Your task to perform on an android device: turn on airplane mode Image 0: 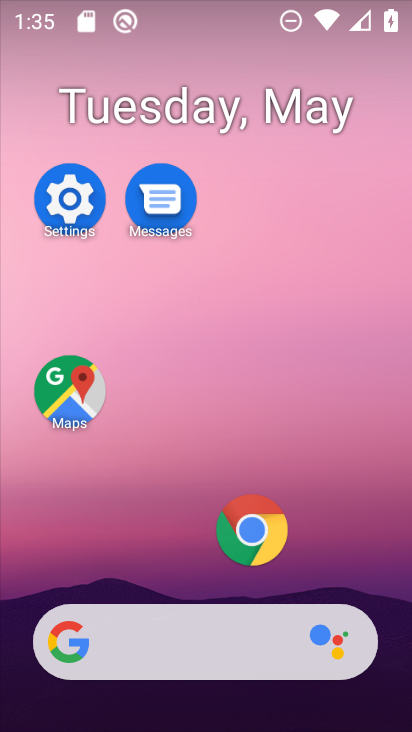
Step 0: drag from (197, 564) to (289, 181)
Your task to perform on an android device: turn on airplane mode Image 1: 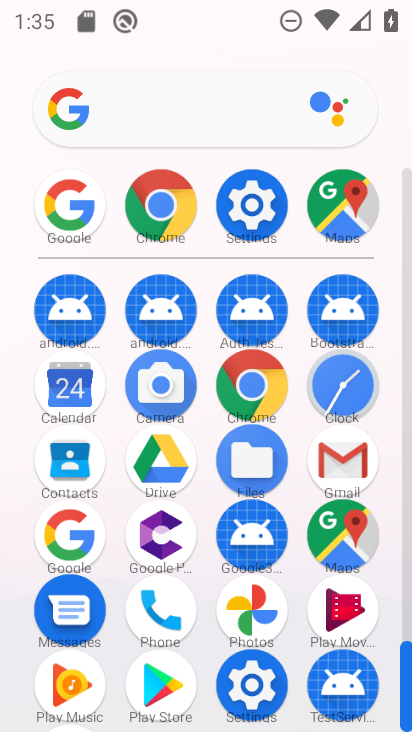
Step 1: click (258, 703)
Your task to perform on an android device: turn on airplane mode Image 2: 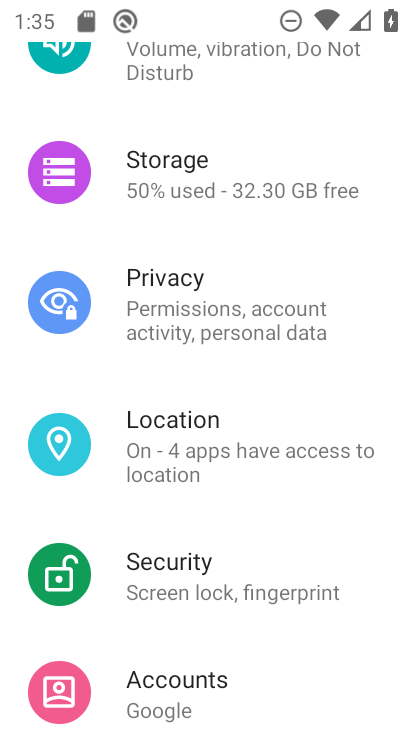
Step 2: drag from (208, 98) to (242, 639)
Your task to perform on an android device: turn on airplane mode Image 3: 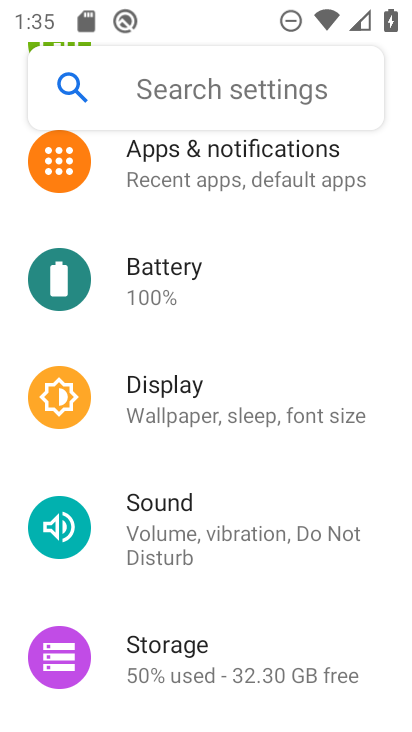
Step 3: drag from (240, 211) to (240, 731)
Your task to perform on an android device: turn on airplane mode Image 4: 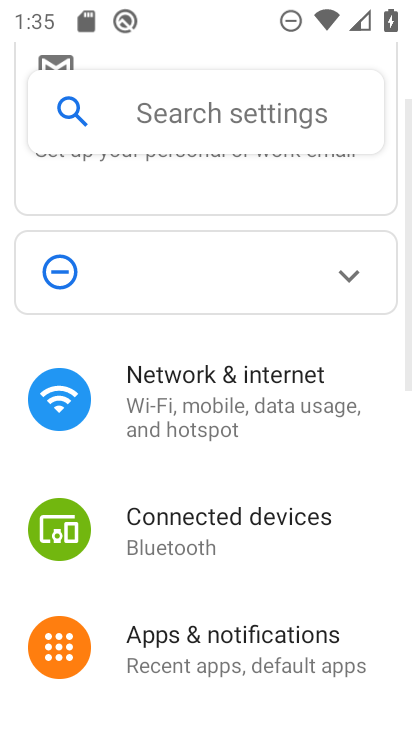
Step 4: drag from (262, 200) to (147, 730)
Your task to perform on an android device: turn on airplane mode Image 5: 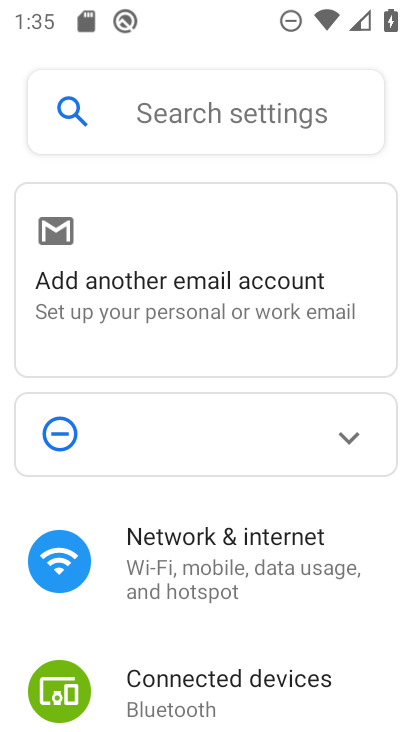
Step 5: drag from (238, 231) to (141, 684)
Your task to perform on an android device: turn on airplane mode Image 6: 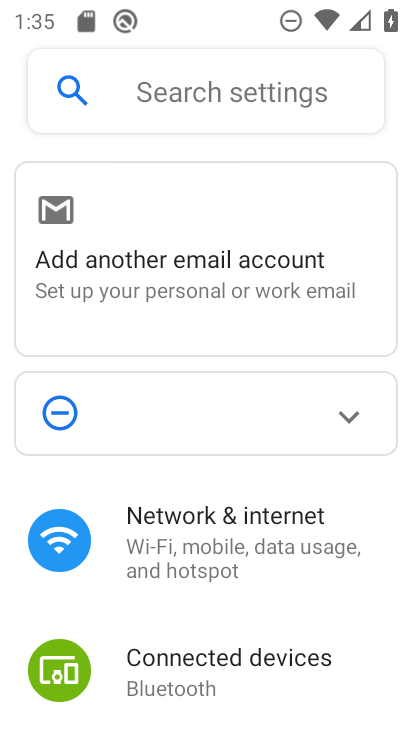
Step 6: click (196, 552)
Your task to perform on an android device: turn on airplane mode Image 7: 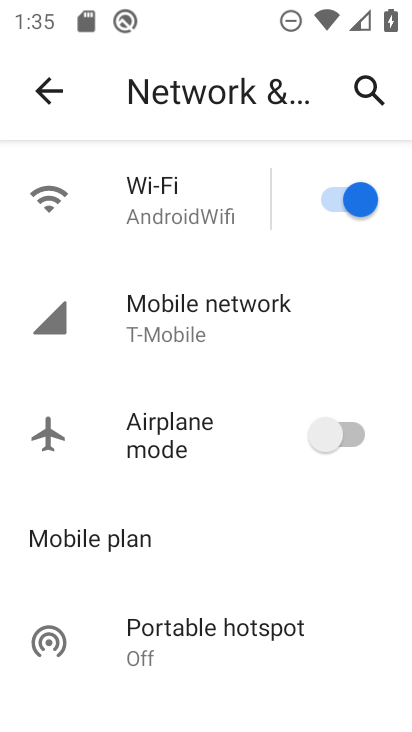
Step 7: click (328, 446)
Your task to perform on an android device: turn on airplane mode Image 8: 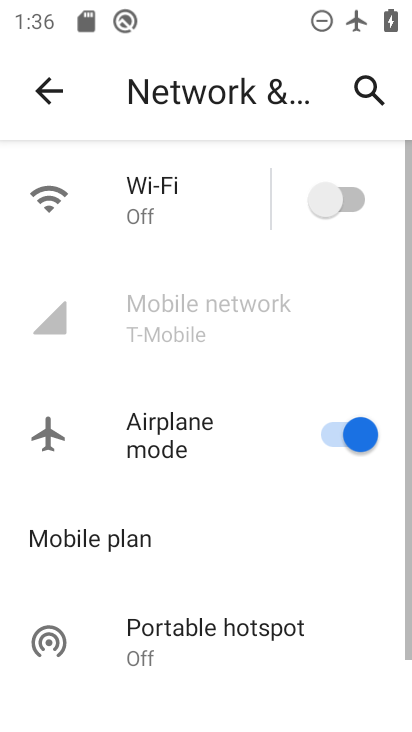
Step 8: task complete